Your task to perform on an android device: Open internet settings Image 0: 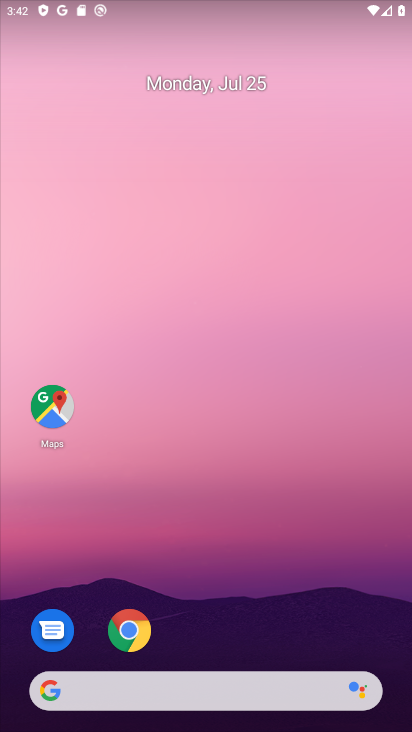
Step 0: drag from (194, 693) to (237, 182)
Your task to perform on an android device: Open internet settings Image 1: 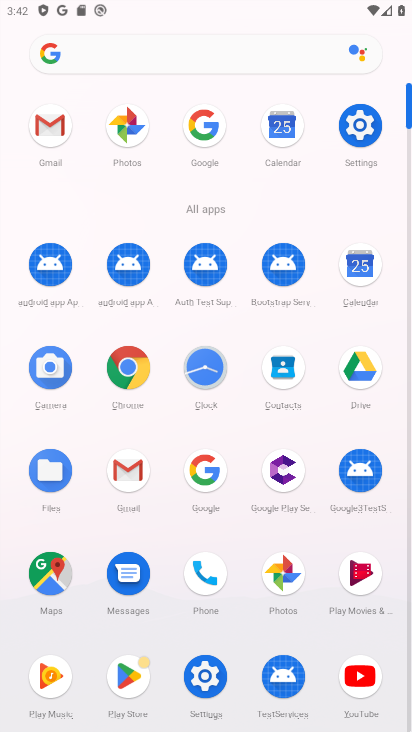
Step 1: click (202, 675)
Your task to perform on an android device: Open internet settings Image 2: 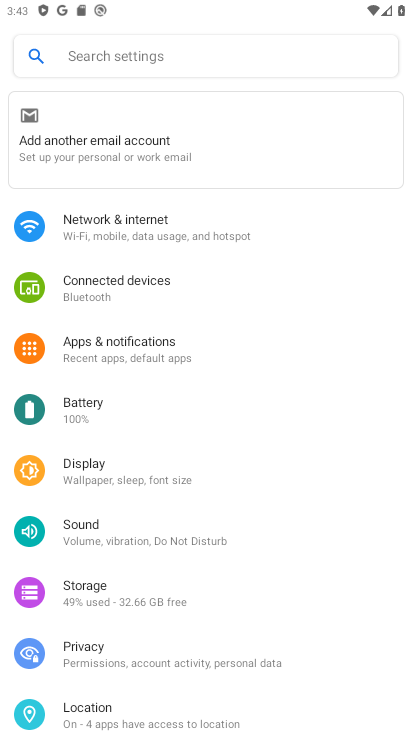
Step 2: click (127, 234)
Your task to perform on an android device: Open internet settings Image 3: 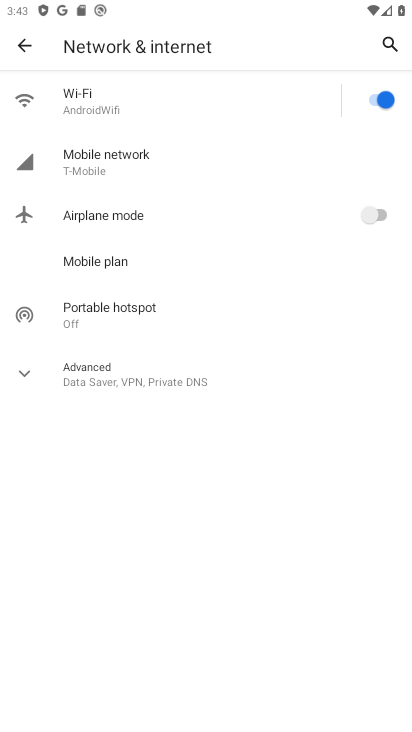
Step 3: task complete